Your task to perform on an android device: Find coffee shops on Maps Image 0: 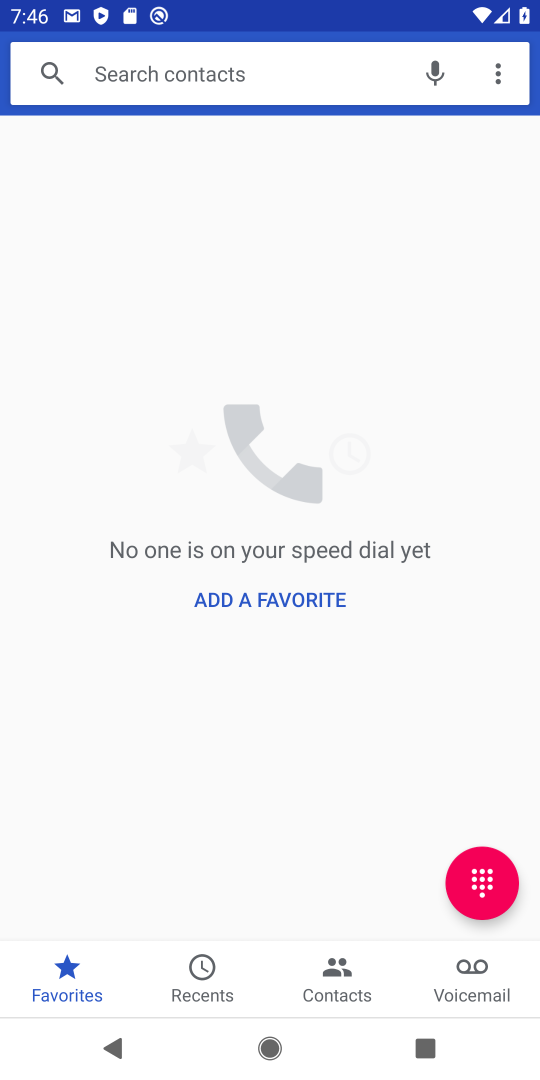
Step 0: press home button
Your task to perform on an android device: Find coffee shops on Maps Image 1: 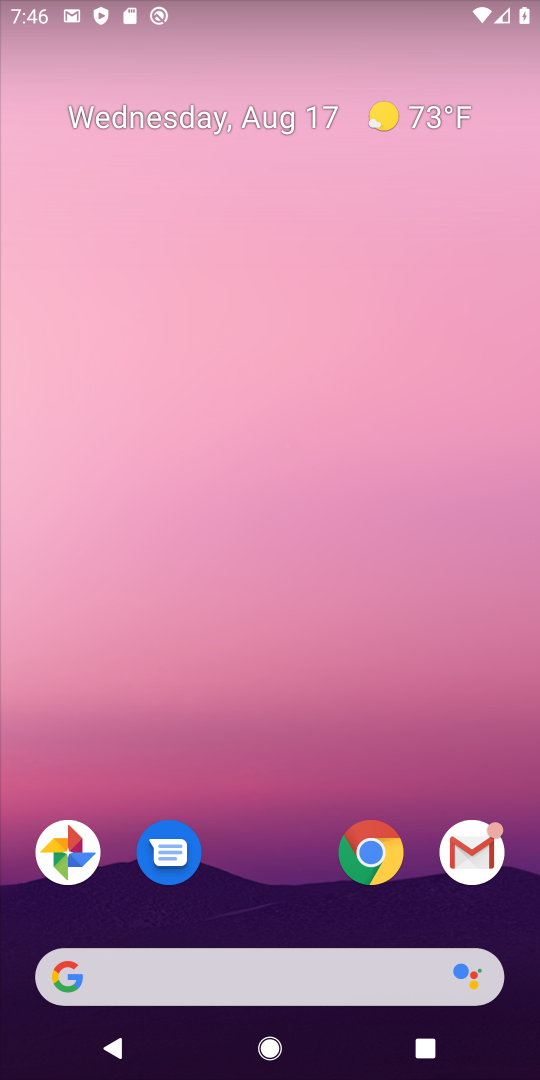
Step 1: drag from (254, 890) to (186, 130)
Your task to perform on an android device: Find coffee shops on Maps Image 2: 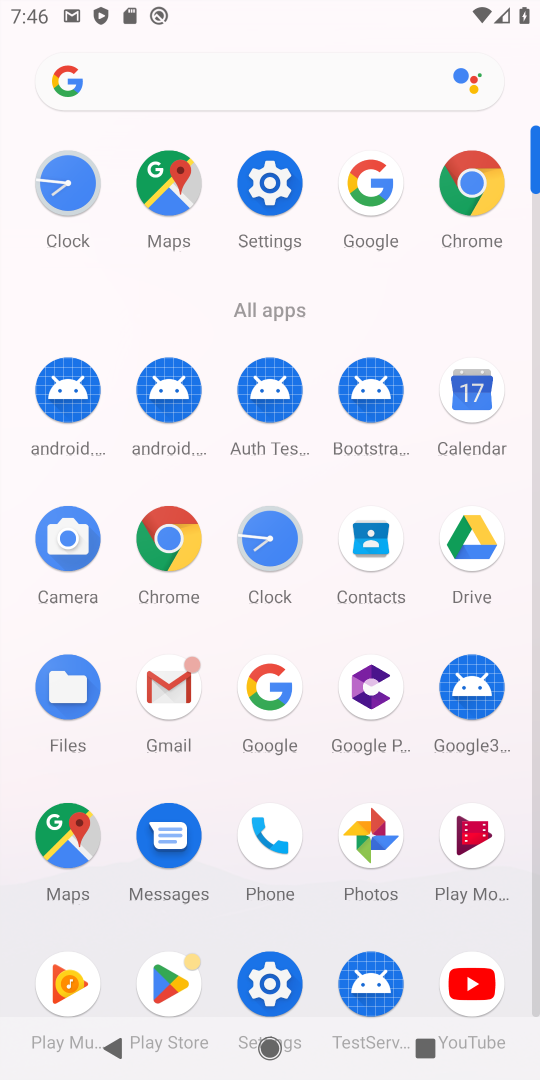
Step 2: click (167, 190)
Your task to perform on an android device: Find coffee shops on Maps Image 3: 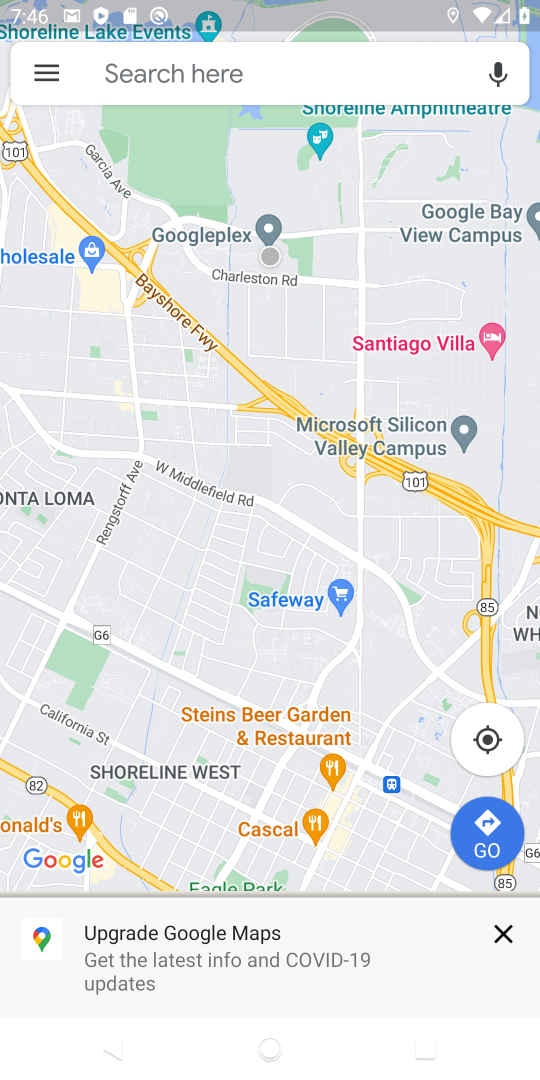
Step 3: click (266, 77)
Your task to perform on an android device: Find coffee shops on Maps Image 4: 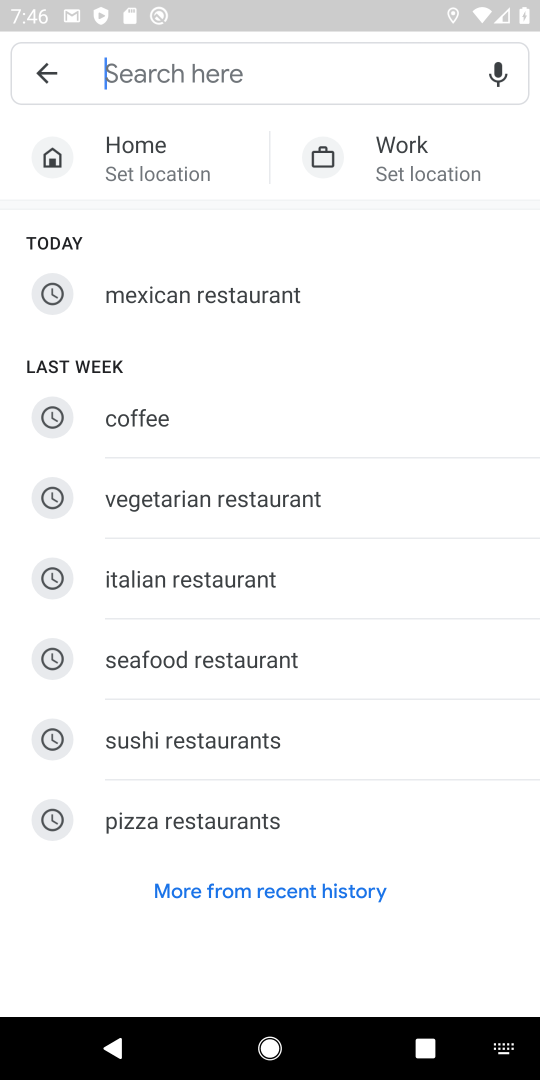
Step 4: click (127, 410)
Your task to perform on an android device: Find coffee shops on Maps Image 5: 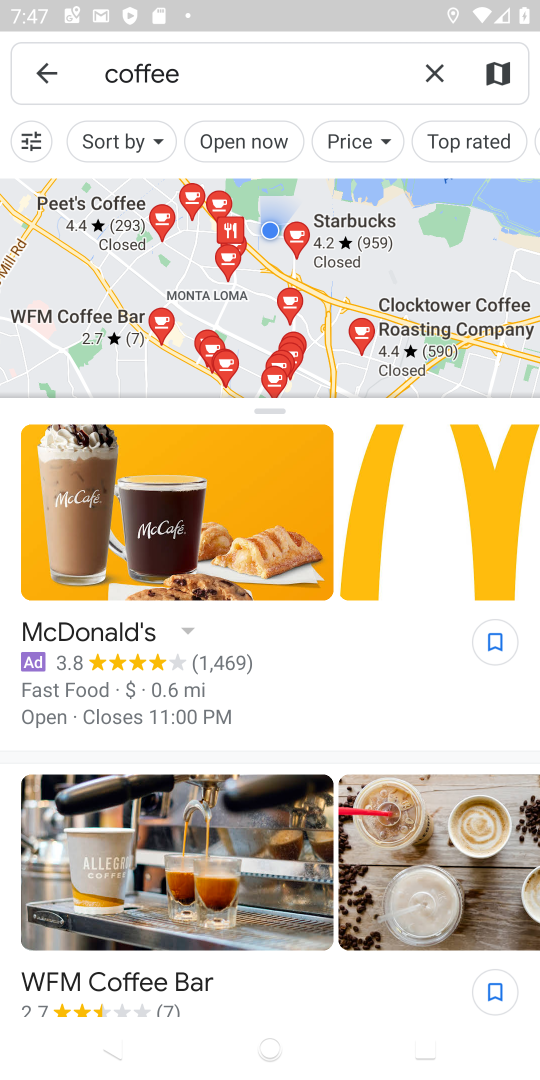
Step 5: task complete